Your task to perform on an android device: find which apps use the phone's location Image 0: 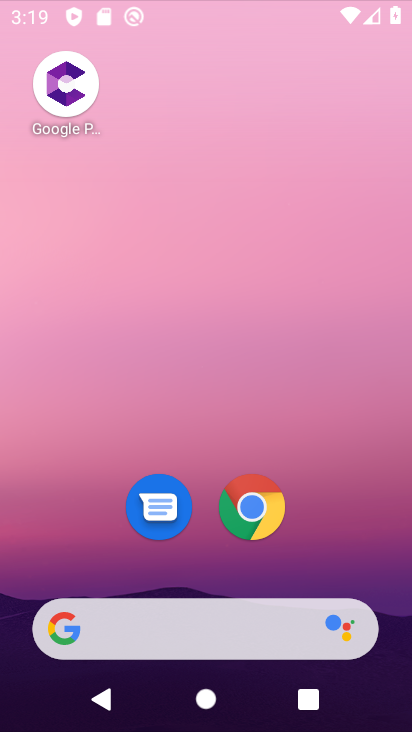
Step 0: click (349, 141)
Your task to perform on an android device: find which apps use the phone's location Image 1: 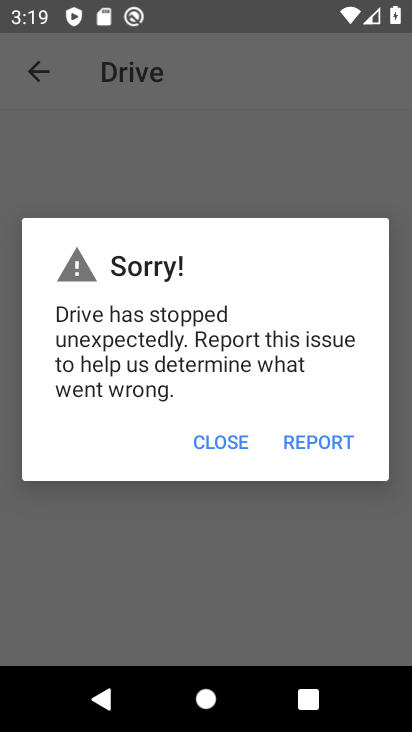
Step 1: click (223, 447)
Your task to perform on an android device: find which apps use the phone's location Image 2: 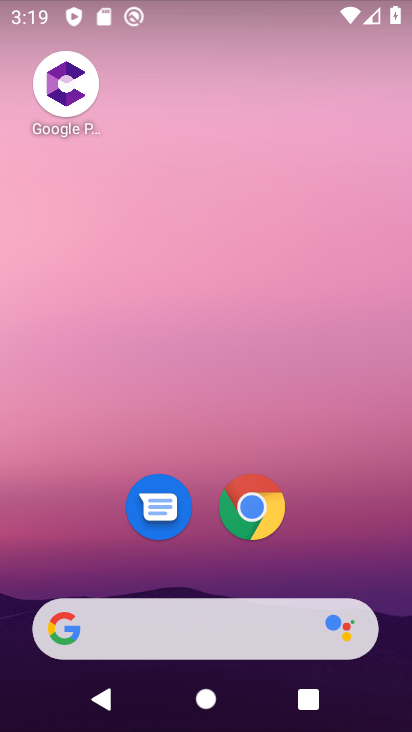
Step 2: drag from (369, 534) to (309, 84)
Your task to perform on an android device: find which apps use the phone's location Image 3: 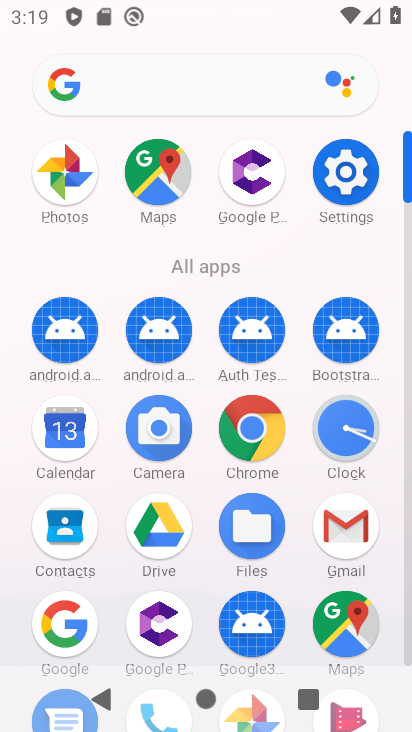
Step 3: click (340, 191)
Your task to perform on an android device: find which apps use the phone's location Image 4: 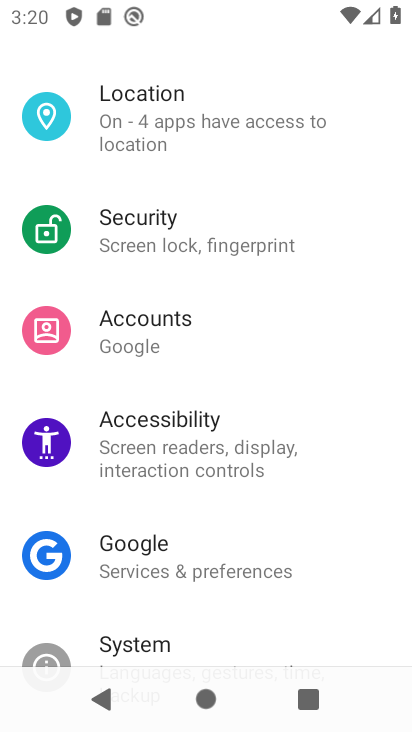
Step 4: drag from (175, 551) to (167, 222)
Your task to perform on an android device: find which apps use the phone's location Image 5: 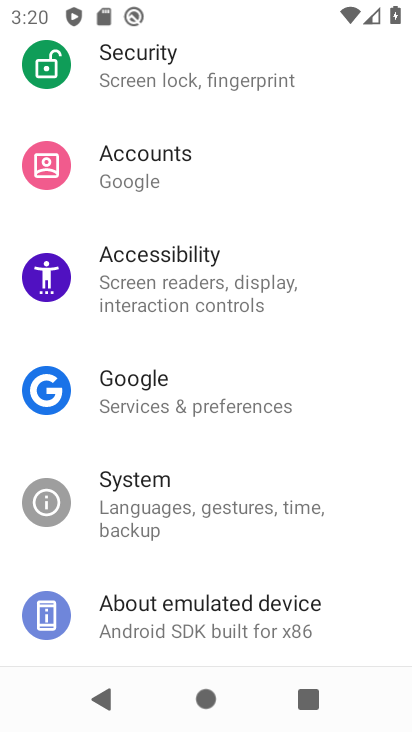
Step 5: drag from (167, 222) to (134, 478)
Your task to perform on an android device: find which apps use the phone's location Image 6: 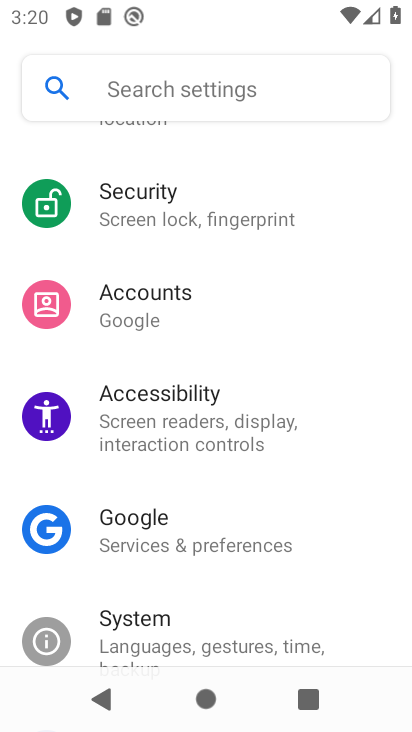
Step 6: drag from (189, 224) to (190, 577)
Your task to perform on an android device: find which apps use the phone's location Image 7: 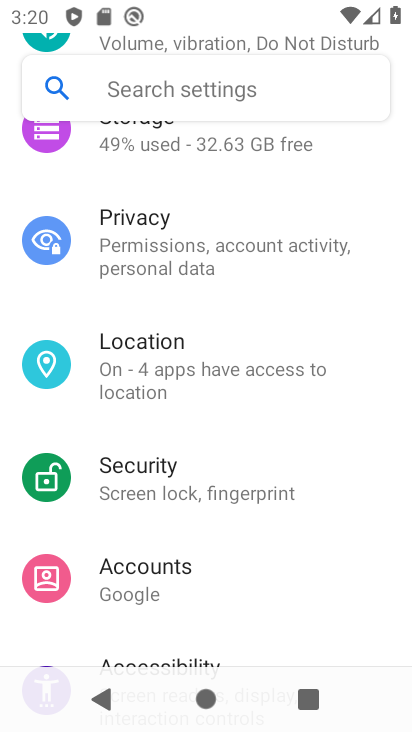
Step 7: drag from (249, 259) to (230, 582)
Your task to perform on an android device: find which apps use the phone's location Image 8: 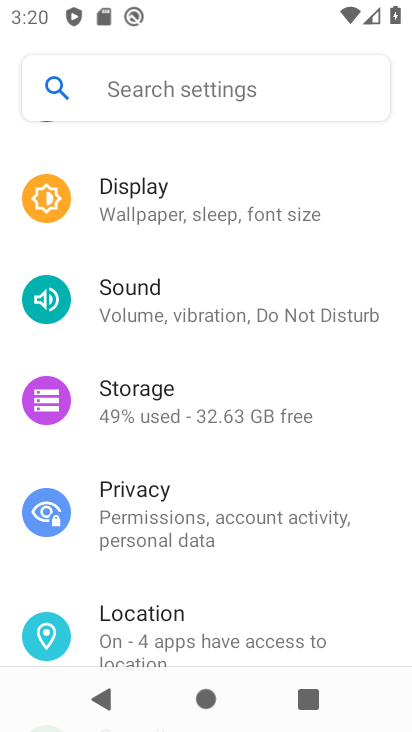
Step 8: click (164, 615)
Your task to perform on an android device: find which apps use the phone's location Image 9: 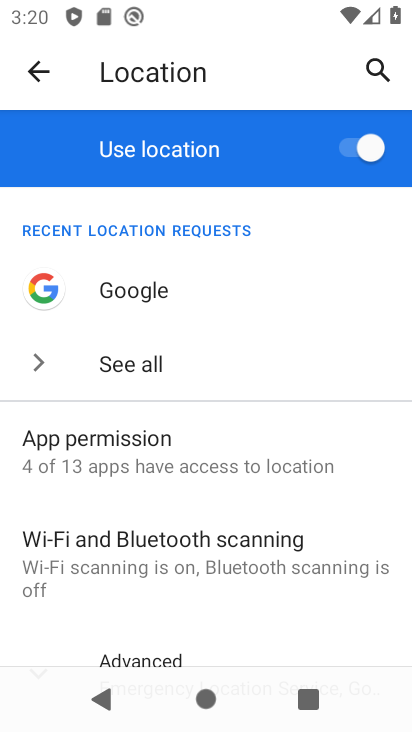
Step 9: drag from (184, 552) to (178, 350)
Your task to perform on an android device: find which apps use the phone's location Image 10: 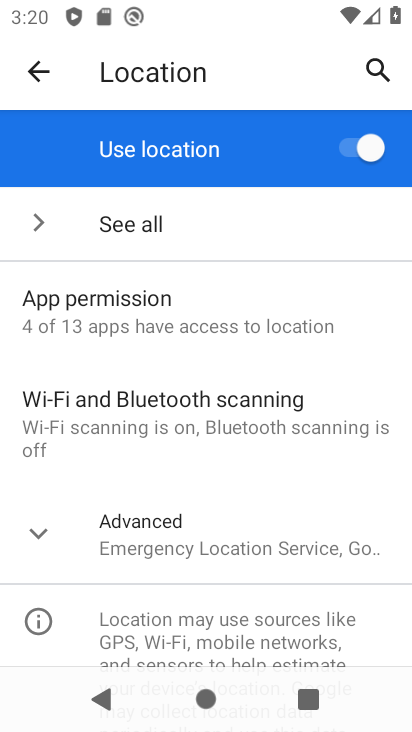
Step 10: click (159, 333)
Your task to perform on an android device: find which apps use the phone's location Image 11: 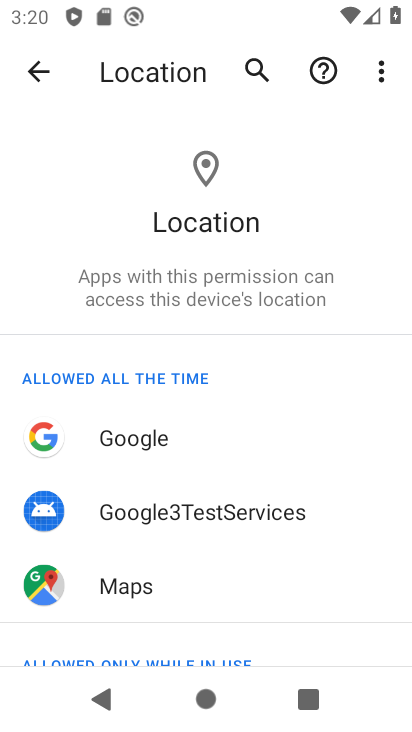
Step 11: task complete